Your task to perform on an android device: check google app version Image 0: 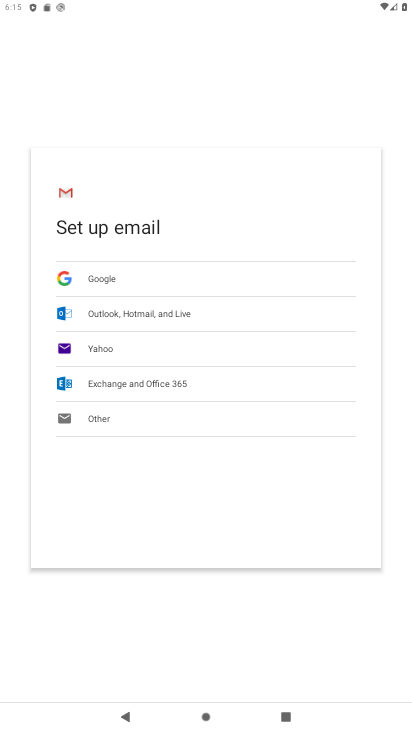
Step 0: press home button
Your task to perform on an android device: check google app version Image 1: 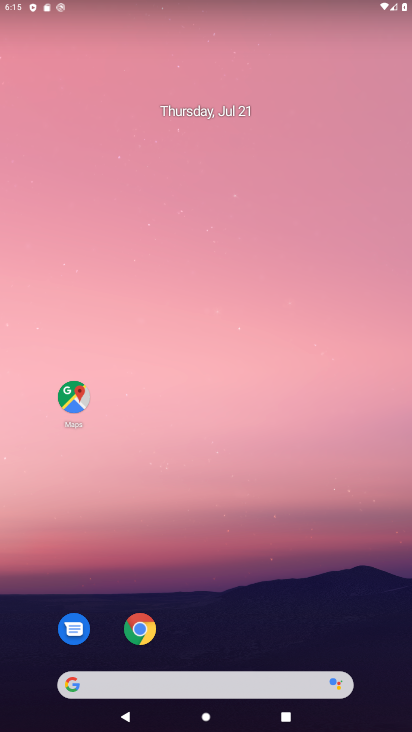
Step 1: drag from (182, 680) to (251, 87)
Your task to perform on an android device: check google app version Image 2: 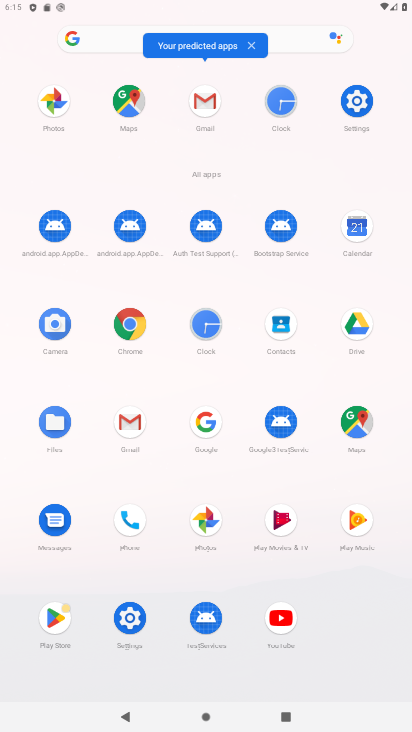
Step 2: click (203, 422)
Your task to perform on an android device: check google app version Image 3: 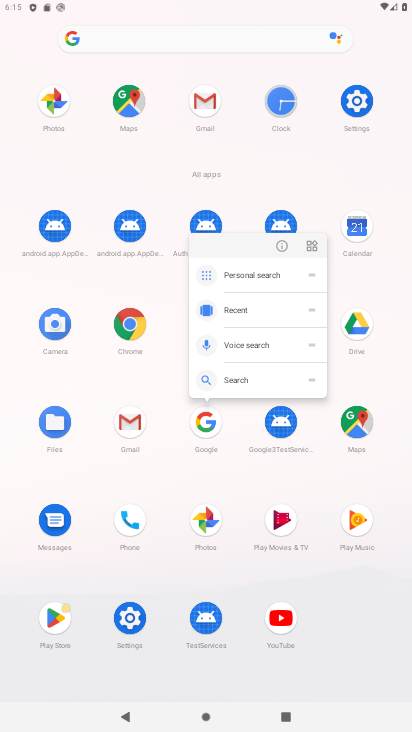
Step 3: click (282, 245)
Your task to perform on an android device: check google app version Image 4: 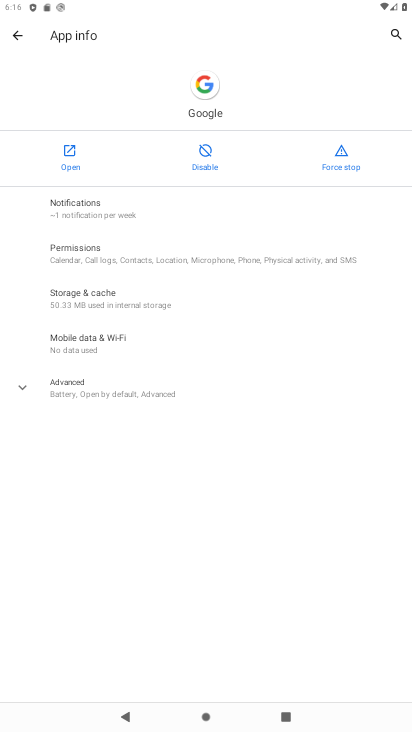
Step 4: click (83, 390)
Your task to perform on an android device: check google app version Image 5: 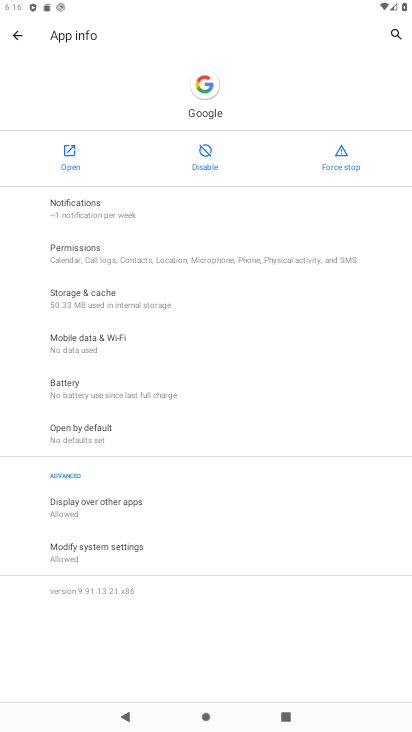
Step 5: task complete